Your task to perform on an android device: Go to wifi settings Image 0: 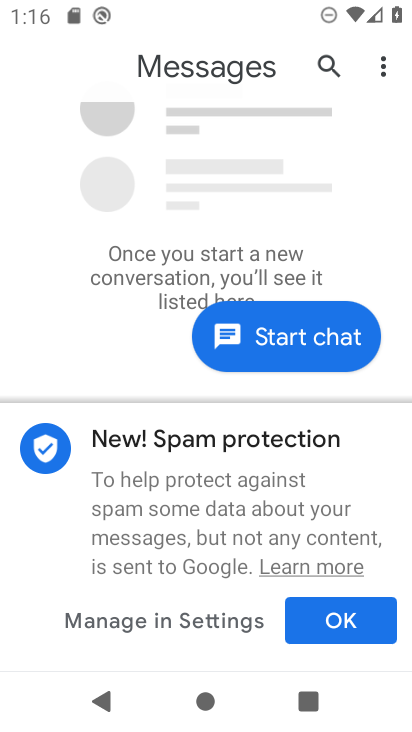
Step 0: press home button
Your task to perform on an android device: Go to wifi settings Image 1: 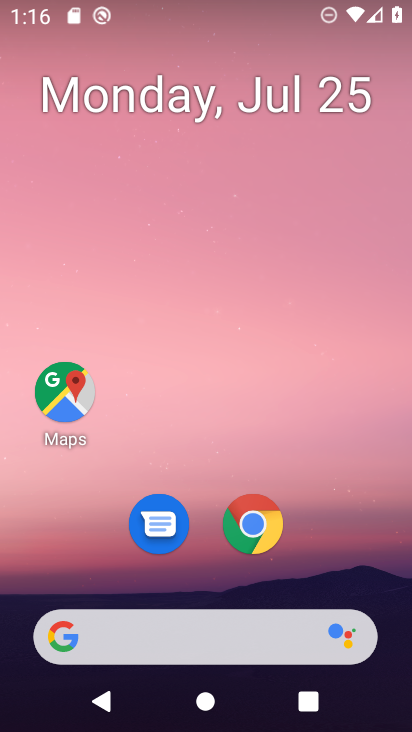
Step 1: drag from (183, 642) to (360, 0)
Your task to perform on an android device: Go to wifi settings Image 2: 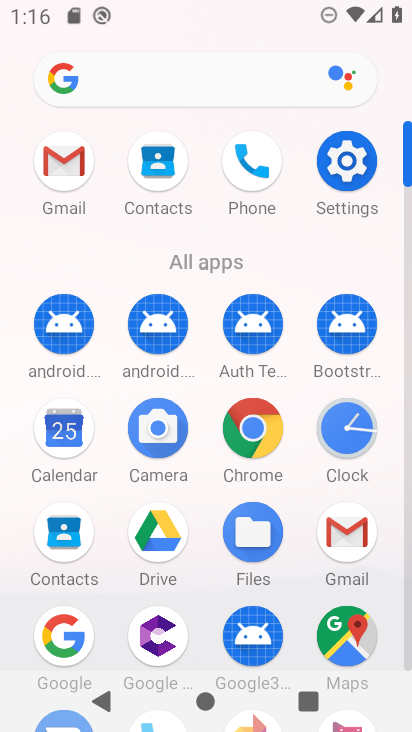
Step 2: click (359, 155)
Your task to perform on an android device: Go to wifi settings Image 3: 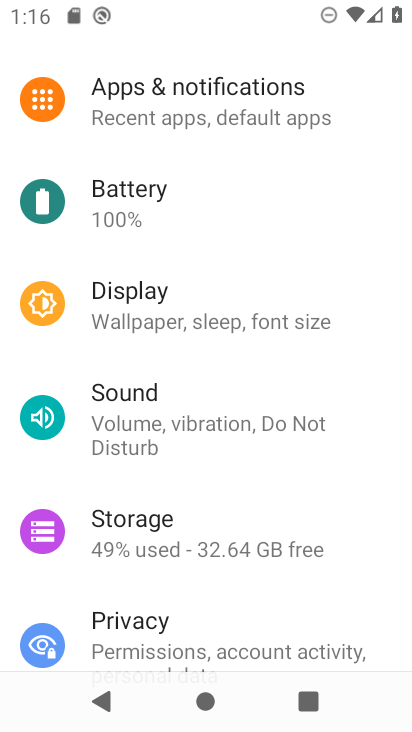
Step 3: drag from (289, 191) to (232, 591)
Your task to perform on an android device: Go to wifi settings Image 4: 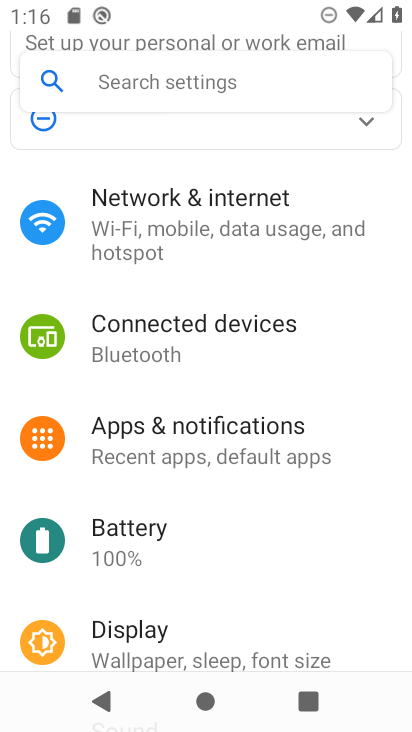
Step 4: click (237, 209)
Your task to perform on an android device: Go to wifi settings Image 5: 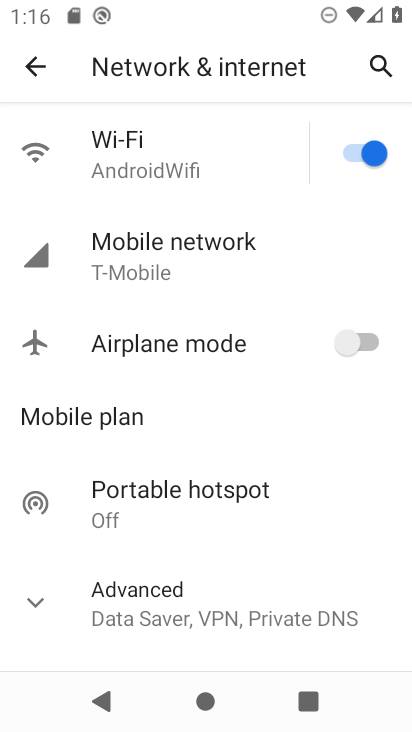
Step 5: click (141, 166)
Your task to perform on an android device: Go to wifi settings Image 6: 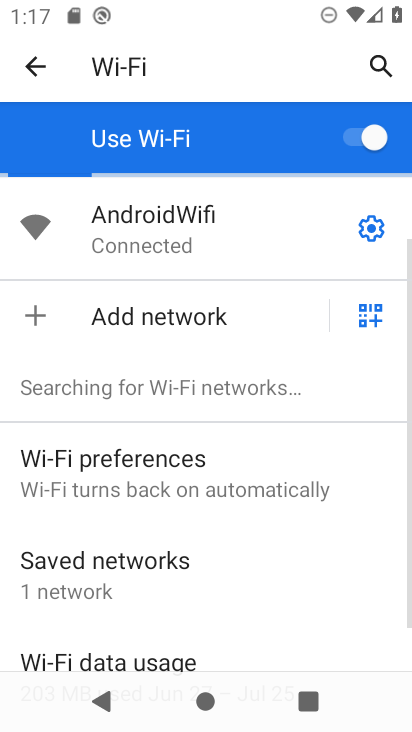
Step 6: task complete